Your task to perform on an android device: open app "Paramount+ | Peak Streaming" (install if not already installed) and go to login screen Image 0: 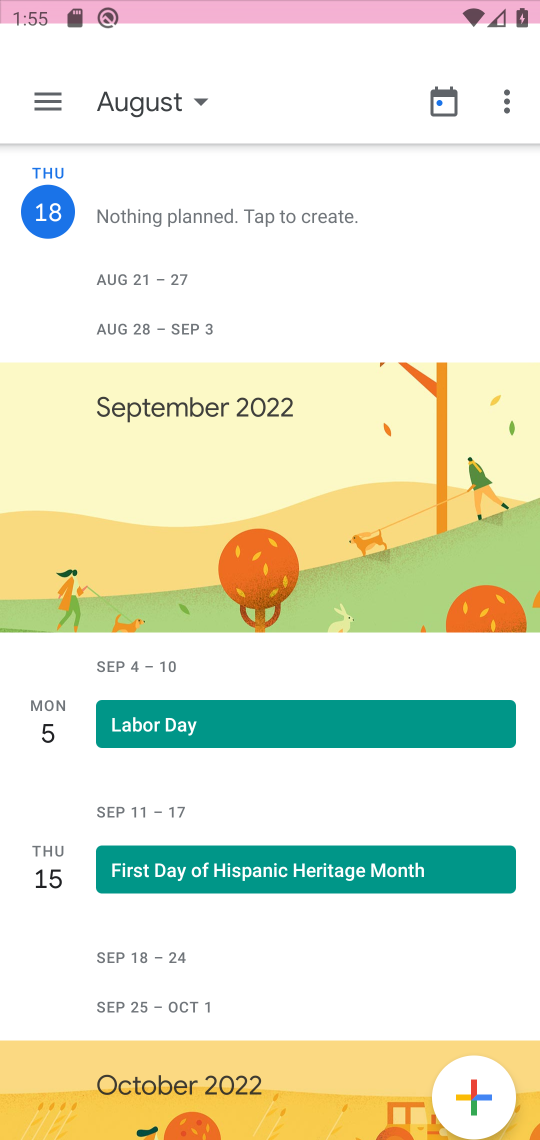
Step 0: click (371, 245)
Your task to perform on an android device: open app "Paramount+ | Peak Streaming" (install if not already installed) and go to login screen Image 1: 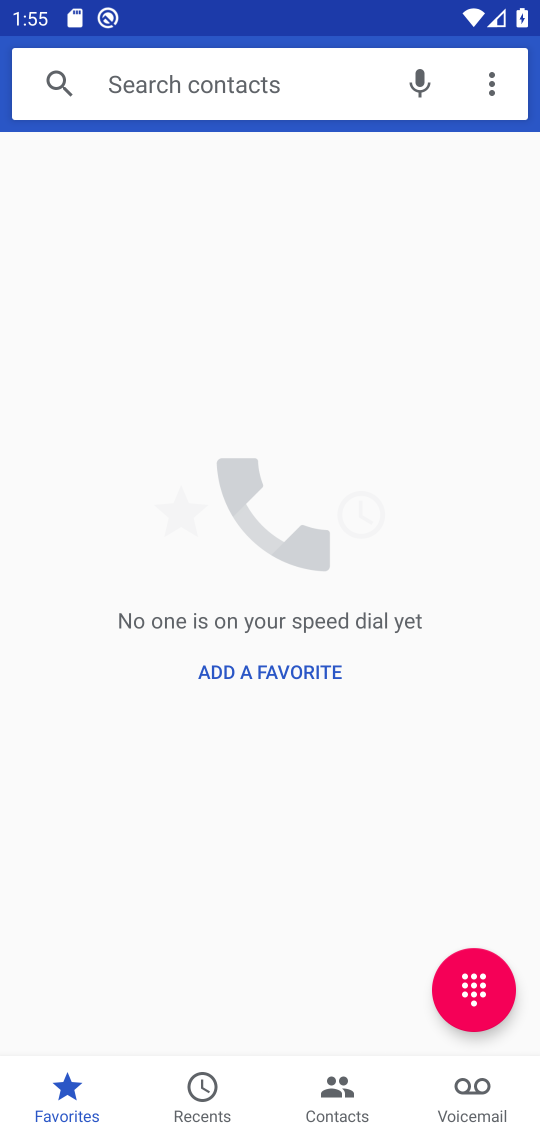
Step 1: task complete